Your task to perform on an android device: open app "Google Play services" Image 0: 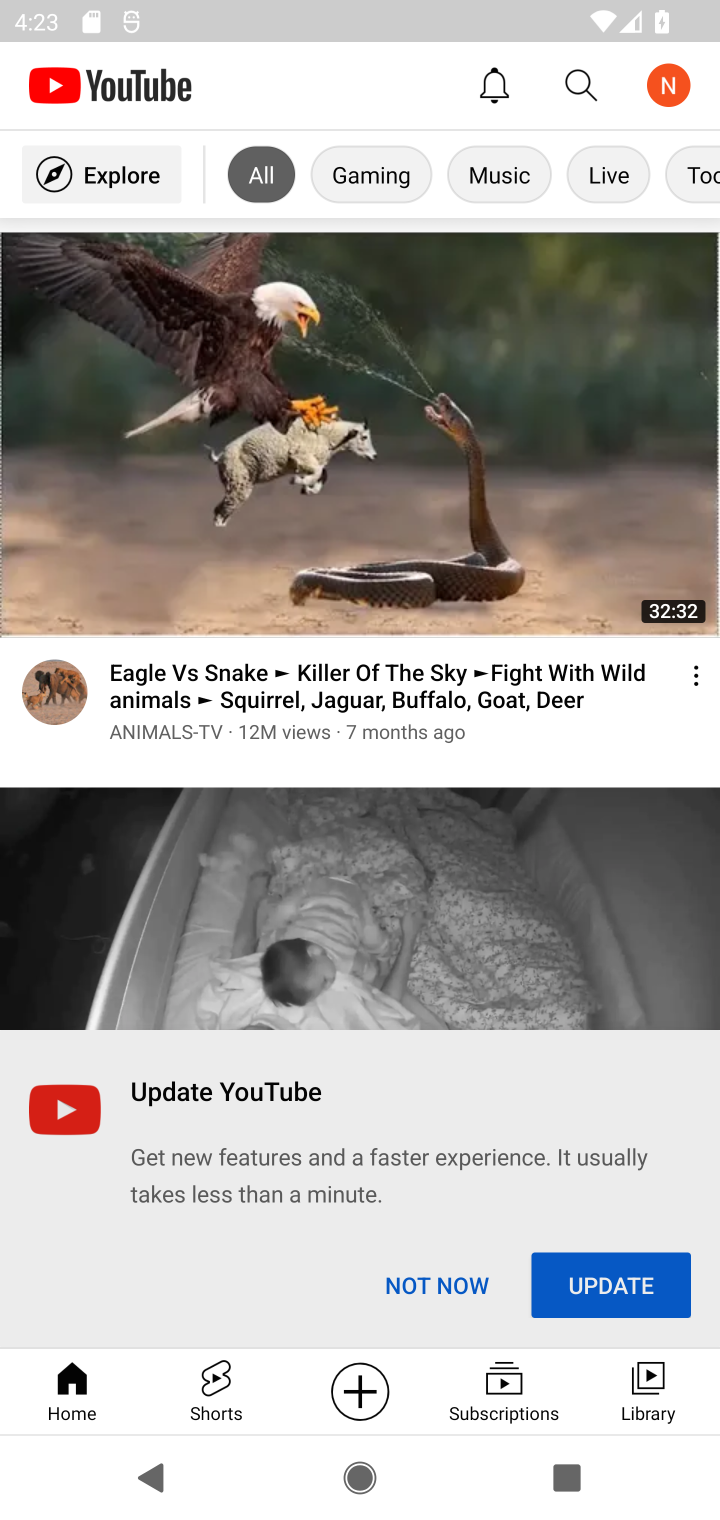
Step 0: press home button
Your task to perform on an android device: open app "Google Play services" Image 1: 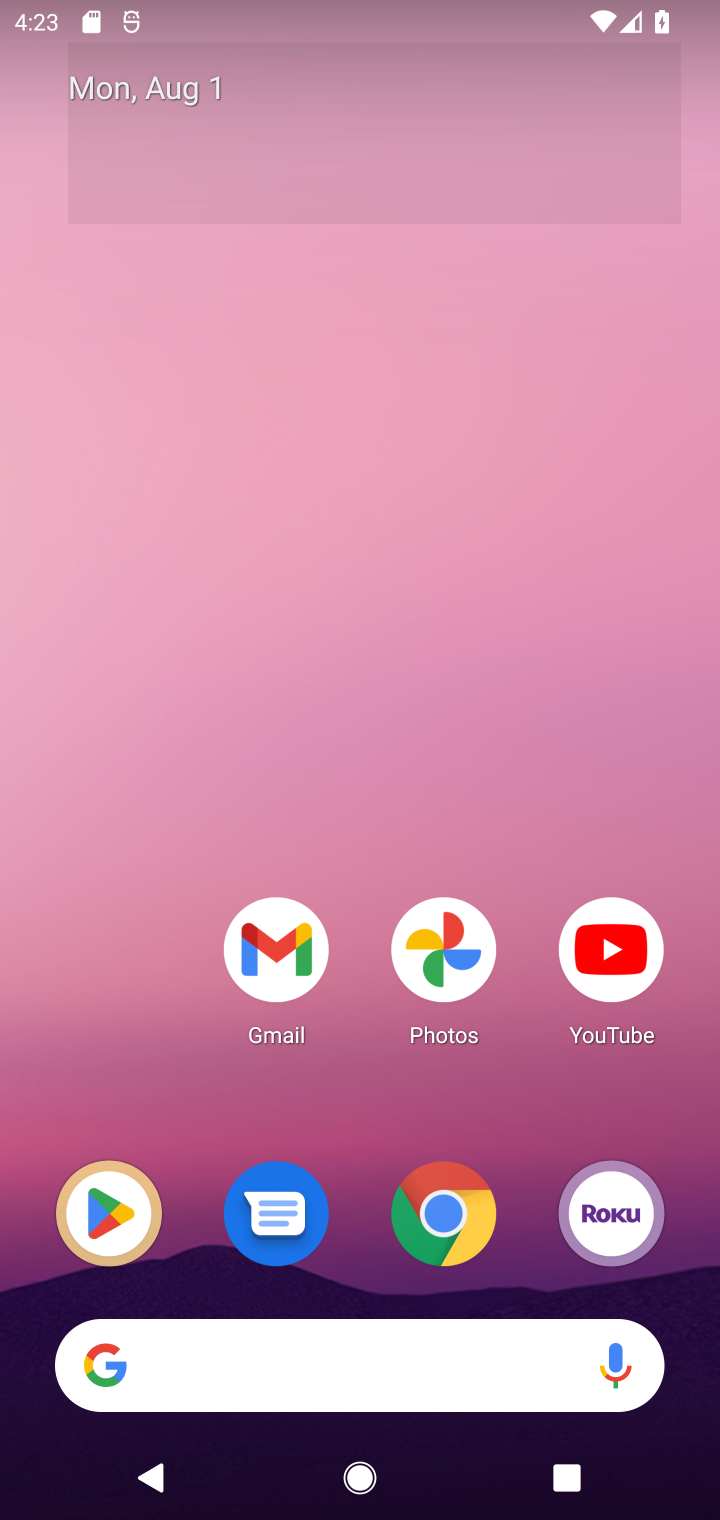
Step 1: drag from (503, 1092) to (506, 0)
Your task to perform on an android device: open app "Google Play services" Image 2: 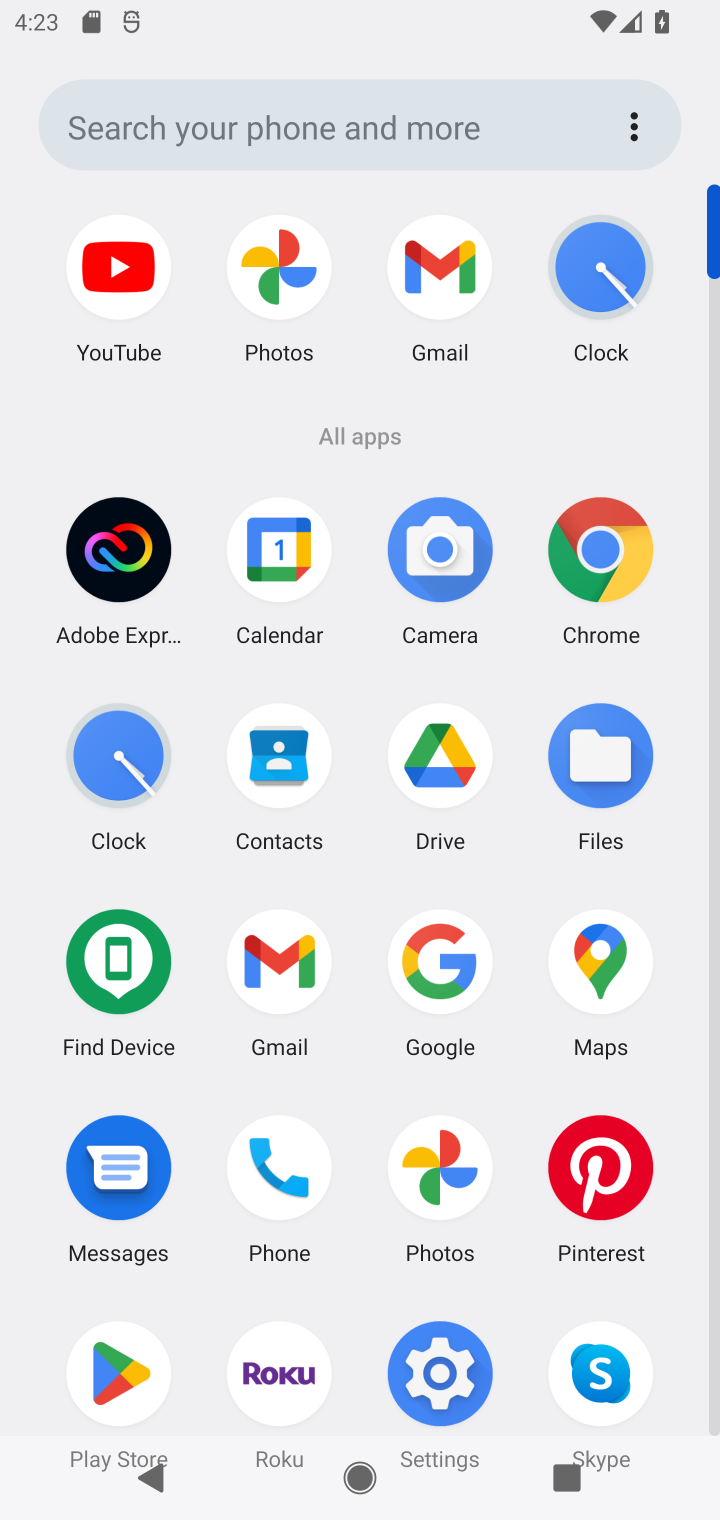
Step 2: drag from (533, 1103) to (602, 354)
Your task to perform on an android device: open app "Google Play services" Image 3: 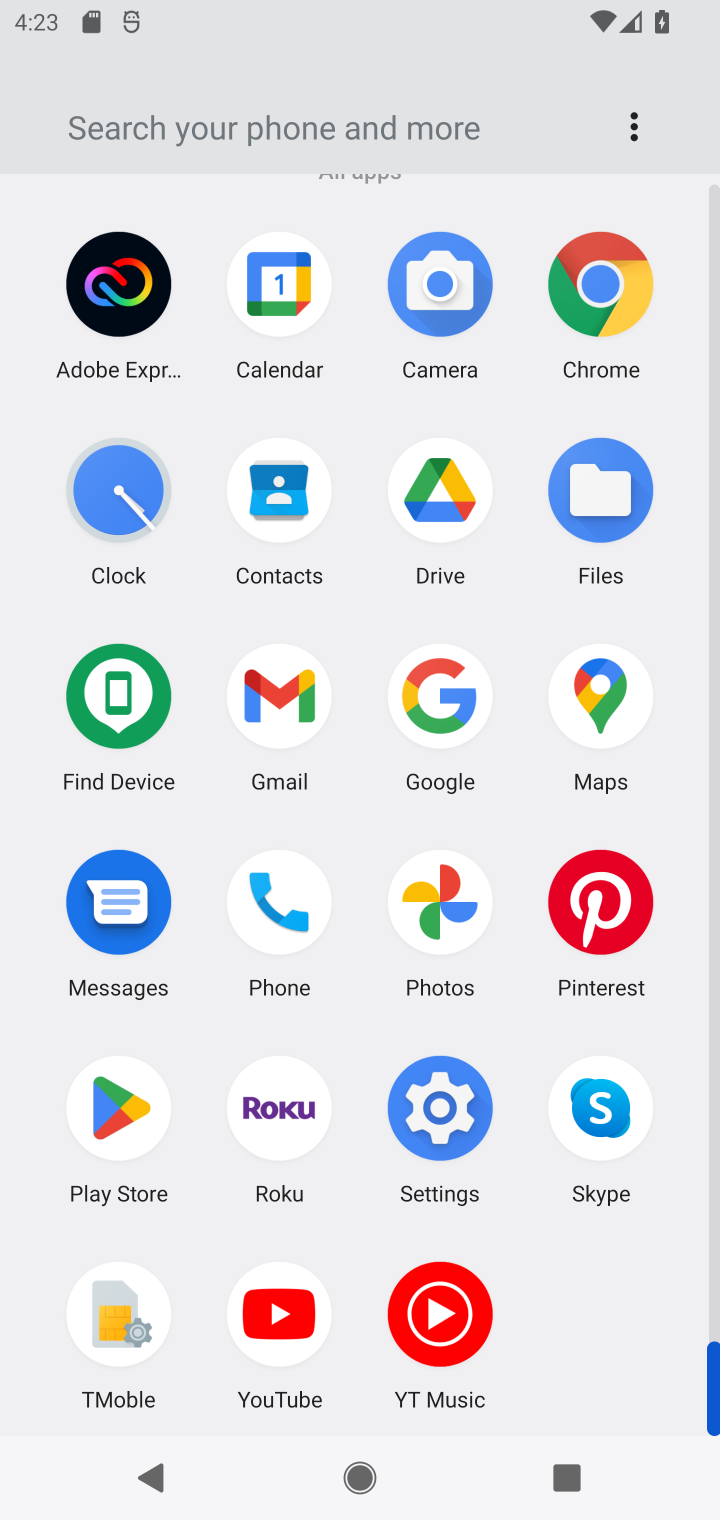
Step 3: click (131, 1102)
Your task to perform on an android device: open app "Google Play services" Image 4: 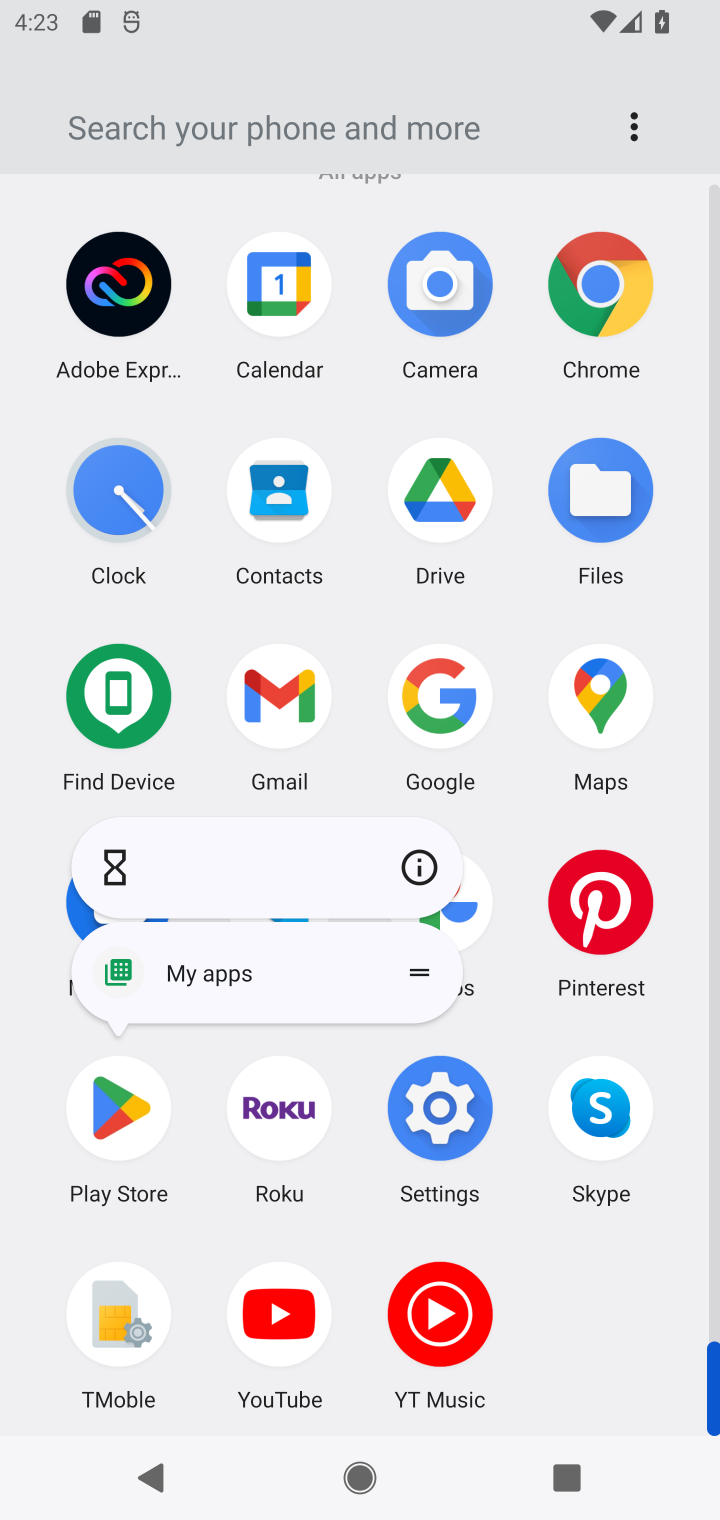
Step 4: click (121, 1138)
Your task to perform on an android device: open app "Google Play services" Image 5: 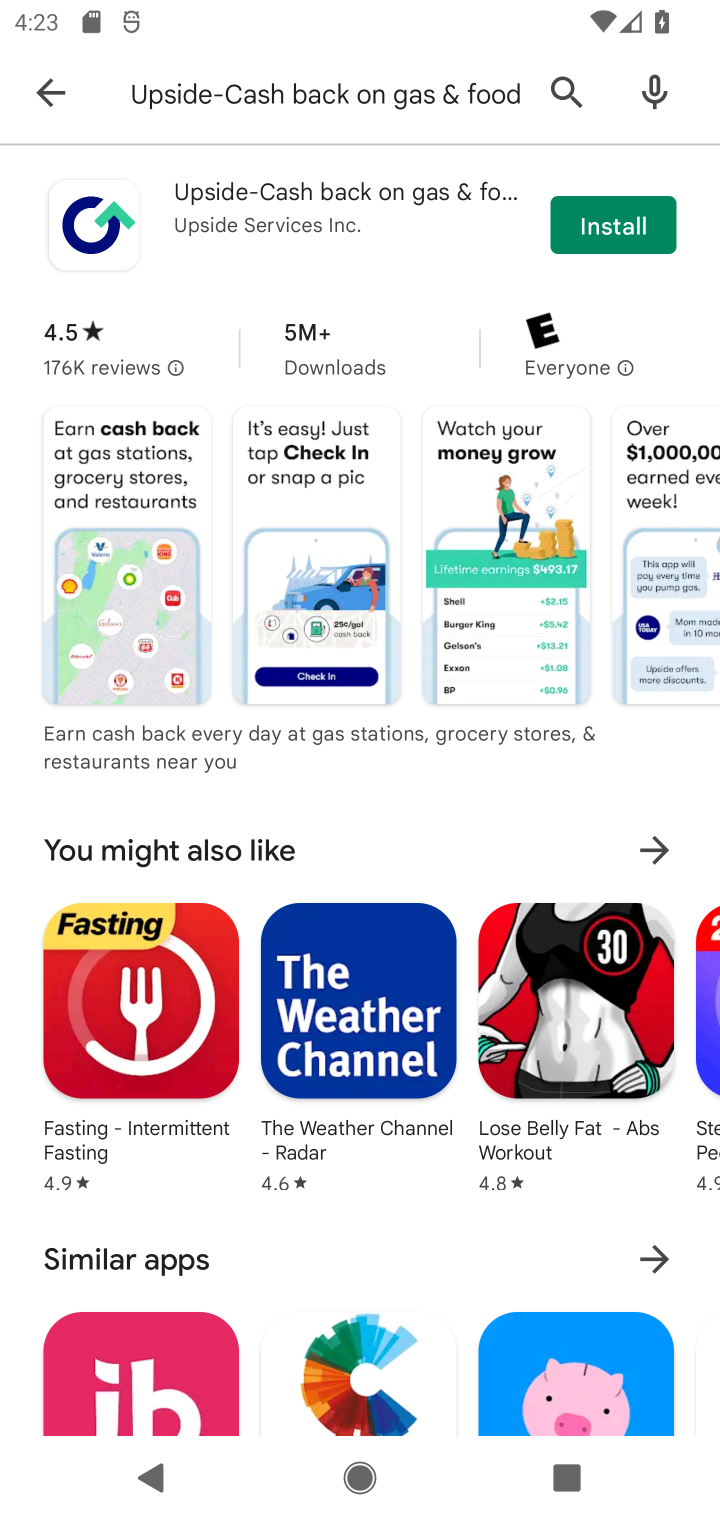
Step 5: click (448, 101)
Your task to perform on an android device: open app "Google Play services" Image 6: 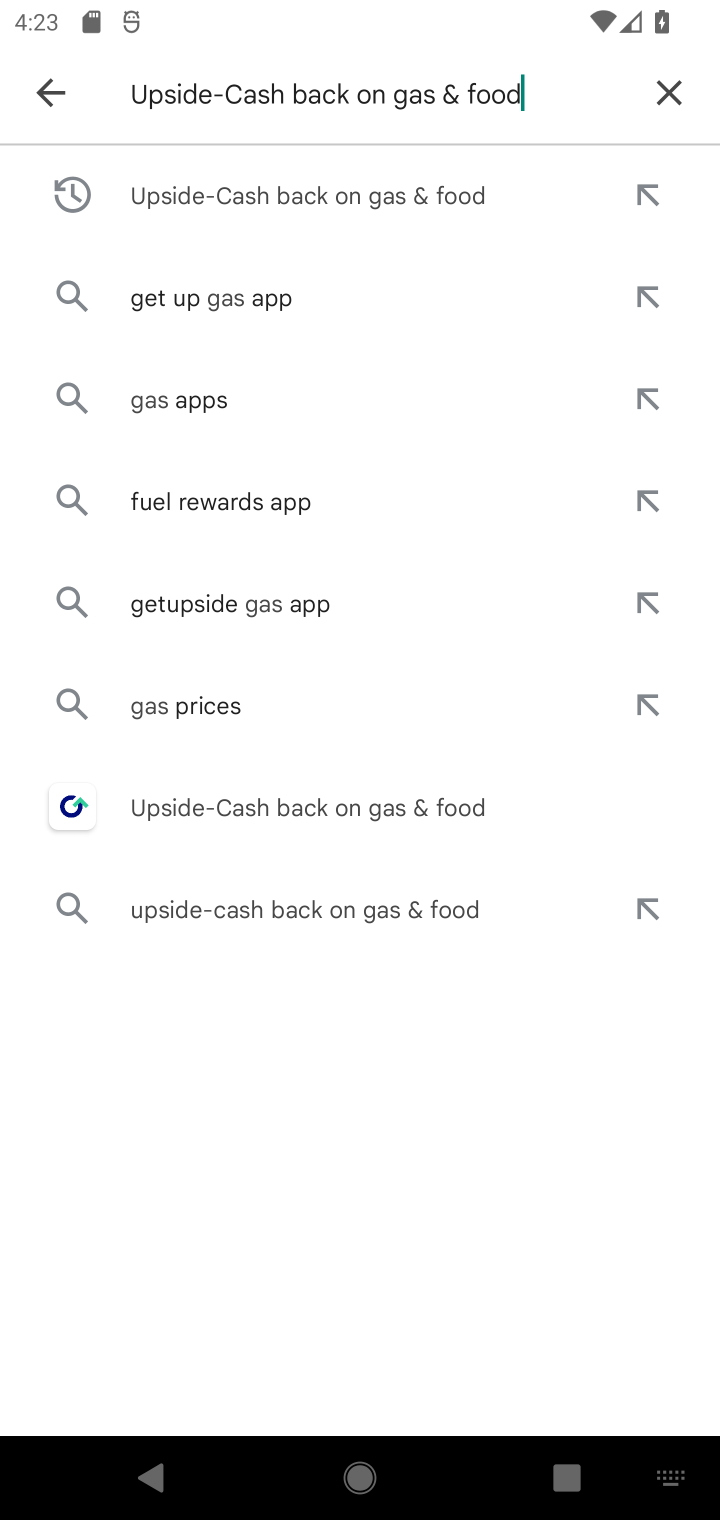
Step 6: click (675, 74)
Your task to perform on an android device: open app "Google Play services" Image 7: 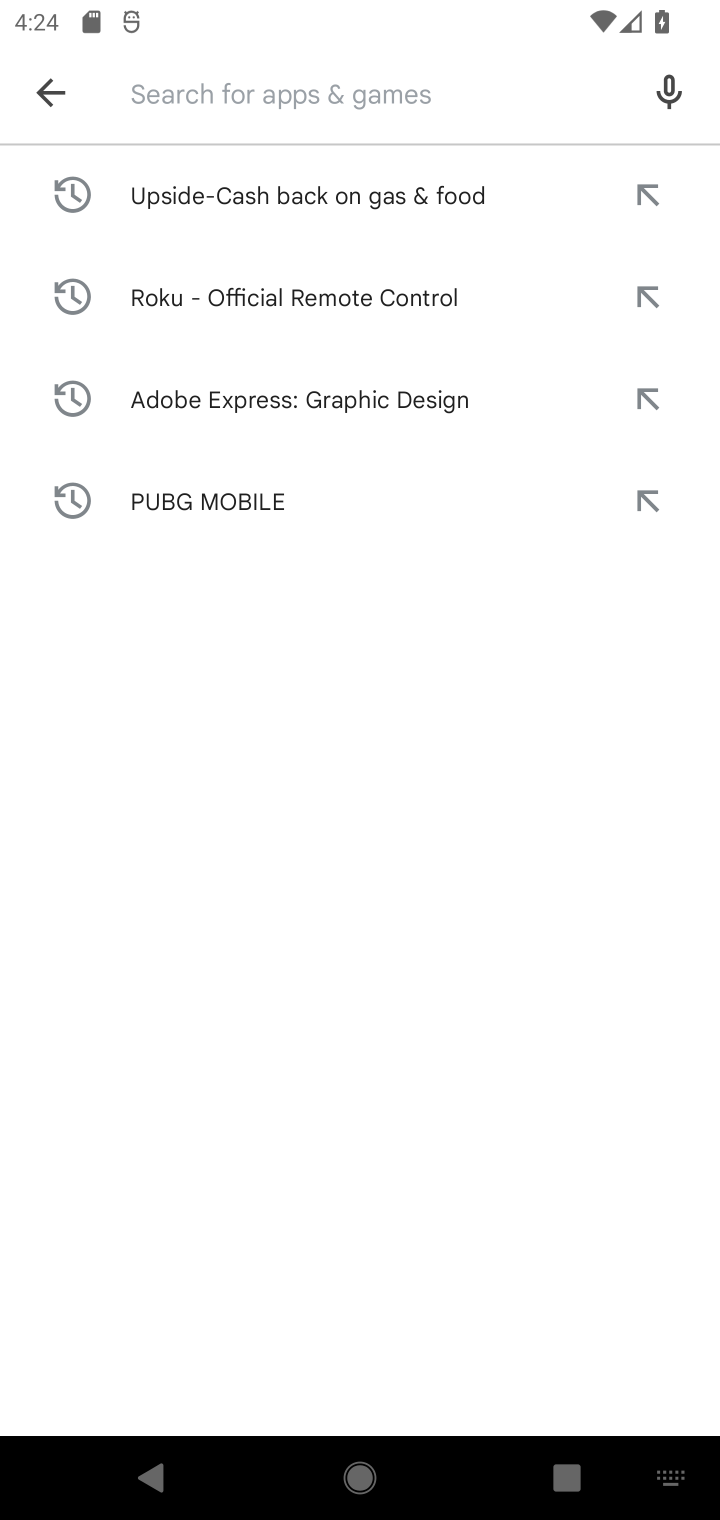
Step 7: type "Google Play services"
Your task to perform on an android device: open app "Google Play services" Image 8: 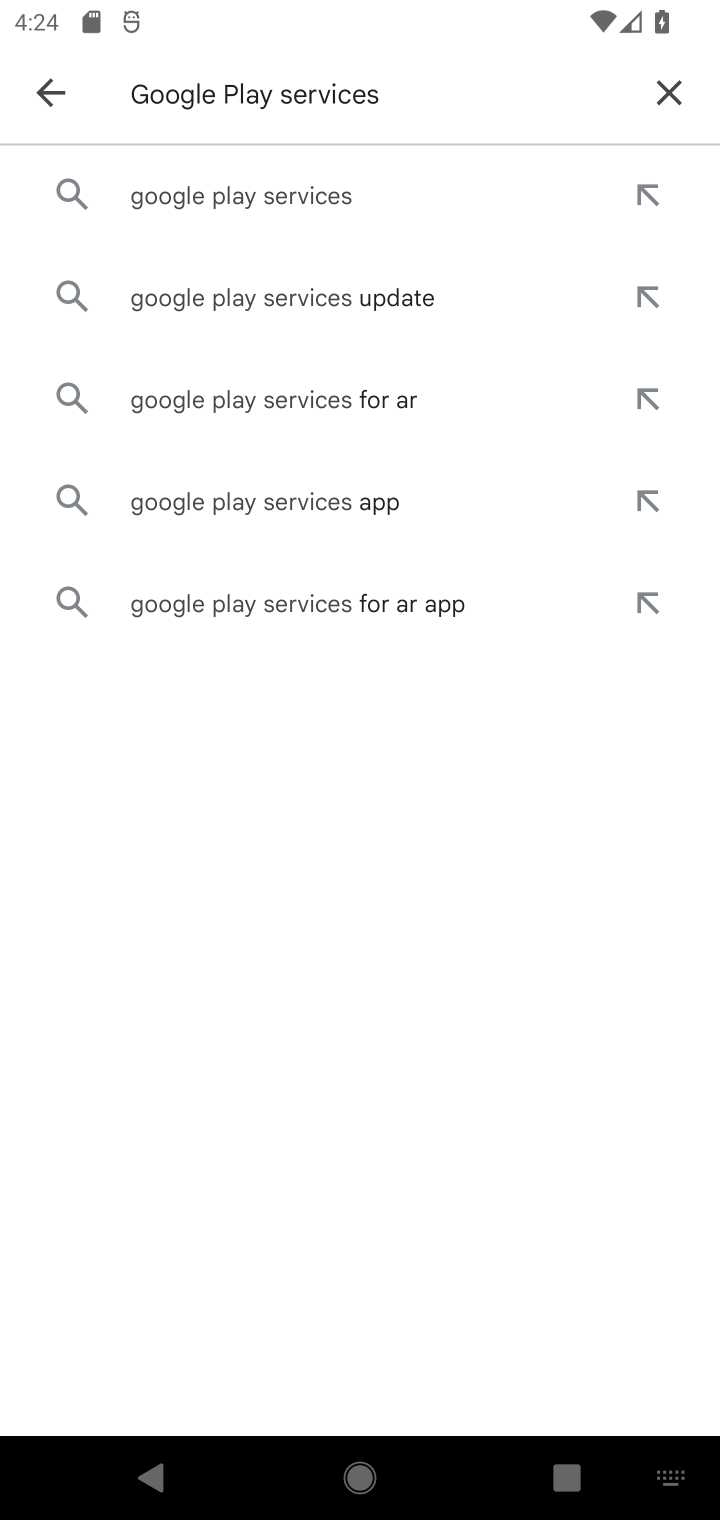
Step 8: press enter
Your task to perform on an android device: open app "Google Play services" Image 9: 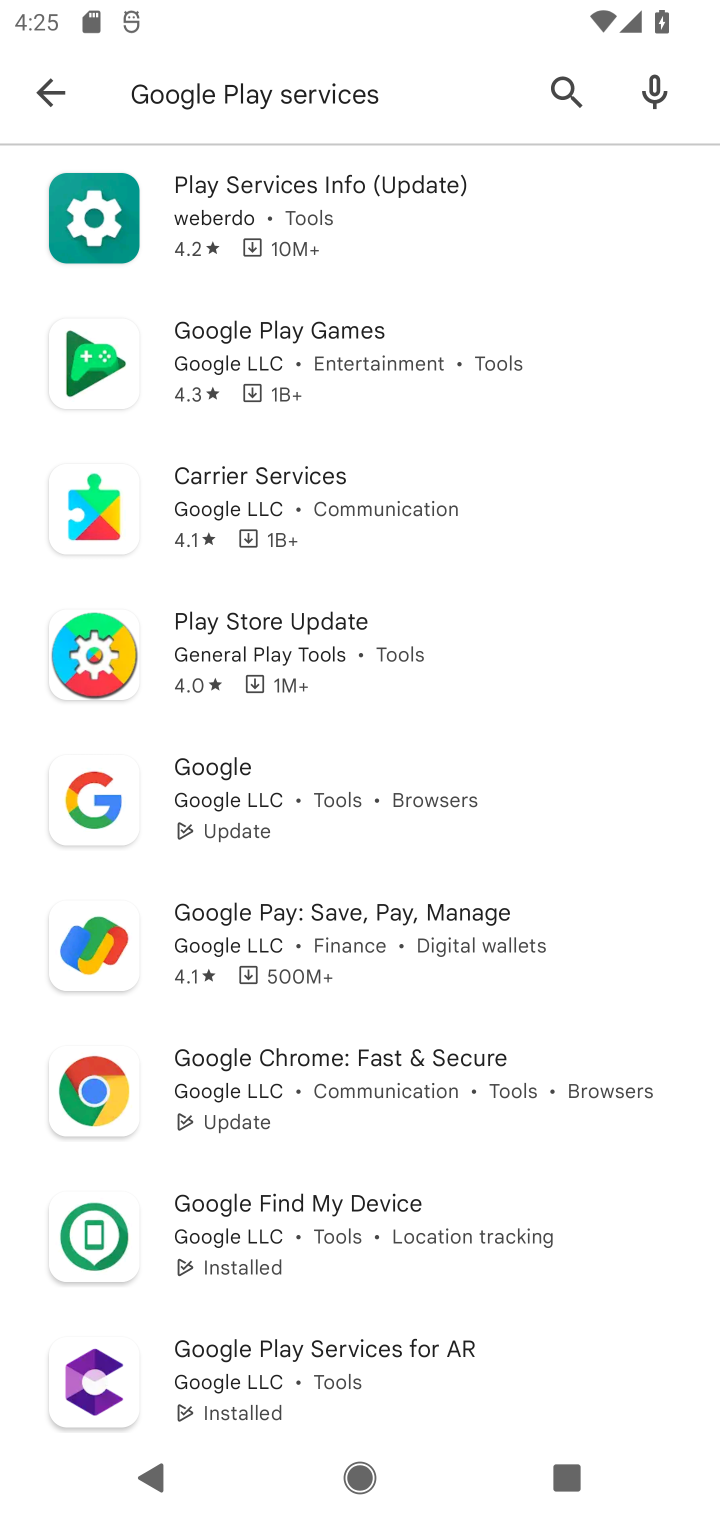
Step 9: press home button
Your task to perform on an android device: open app "Google Play services" Image 10: 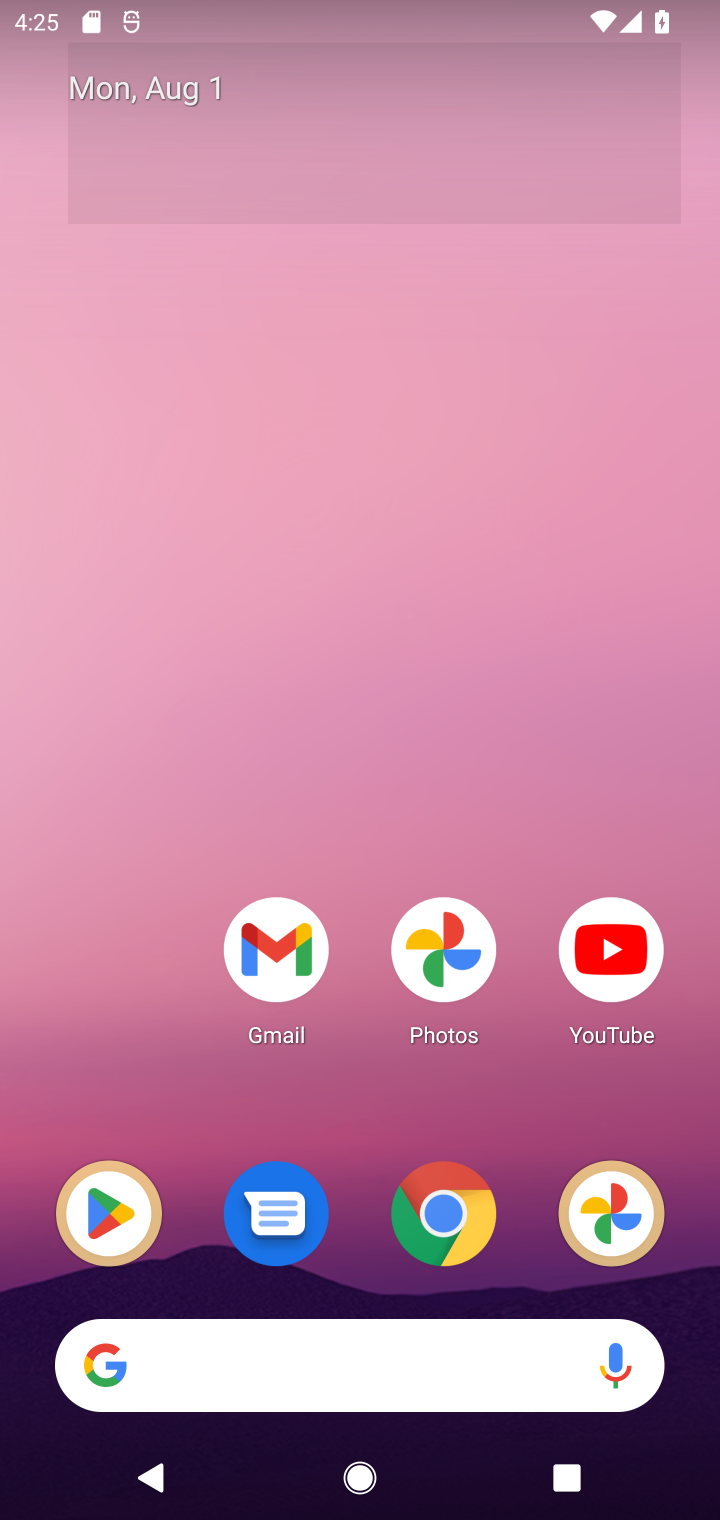
Step 10: drag from (515, 1140) to (474, 26)
Your task to perform on an android device: open app "Google Play services" Image 11: 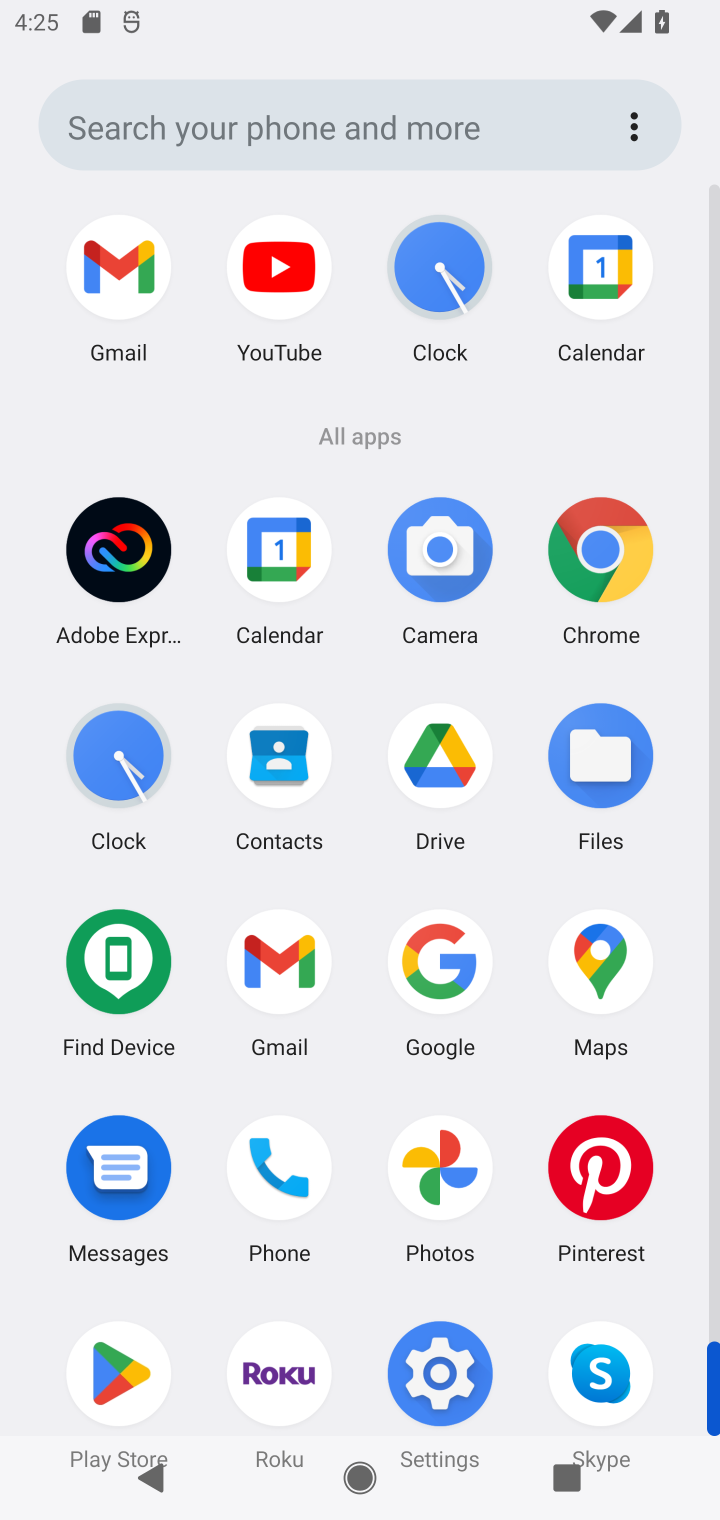
Step 11: click (454, 1377)
Your task to perform on an android device: open app "Google Play services" Image 12: 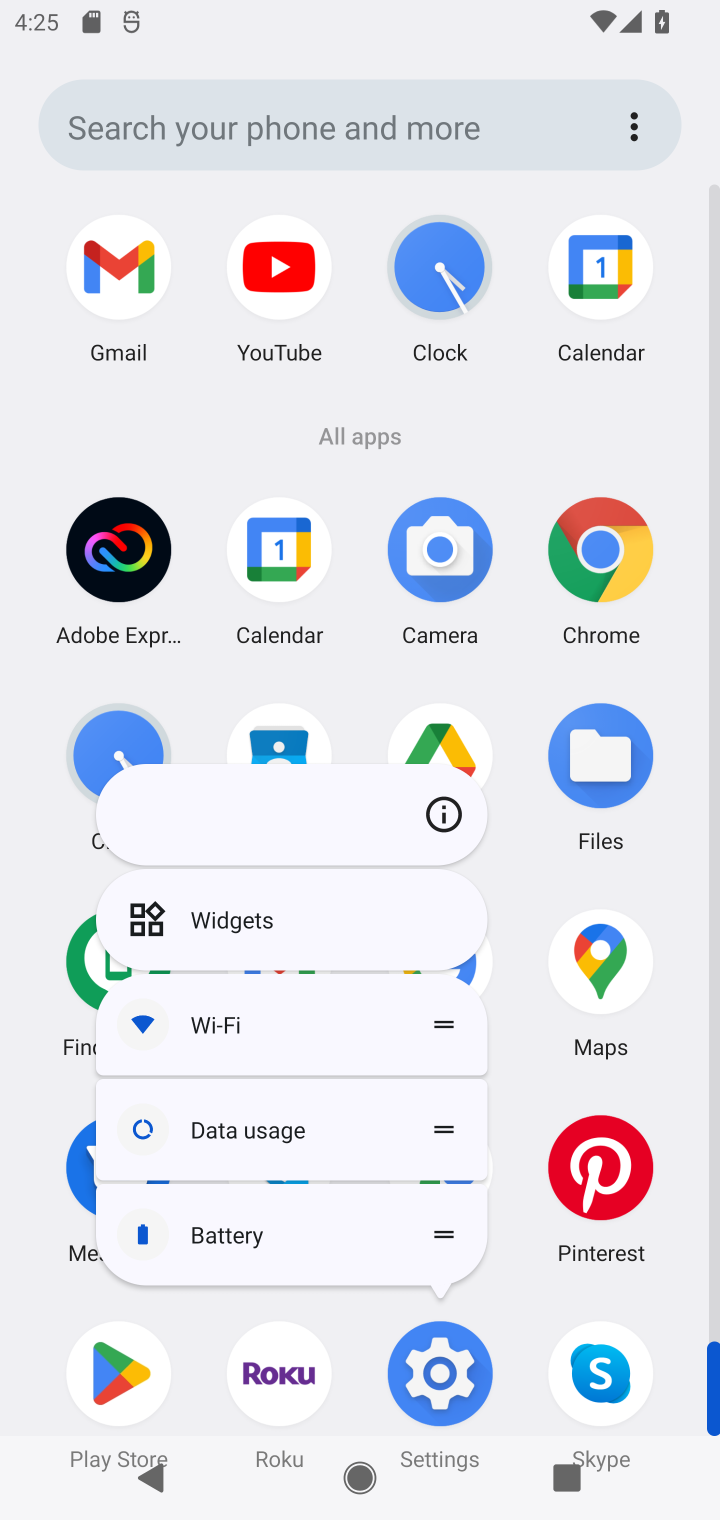
Step 12: click (443, 1403)
Your task to perform on an android device: open app "Google Play services" Image 13: 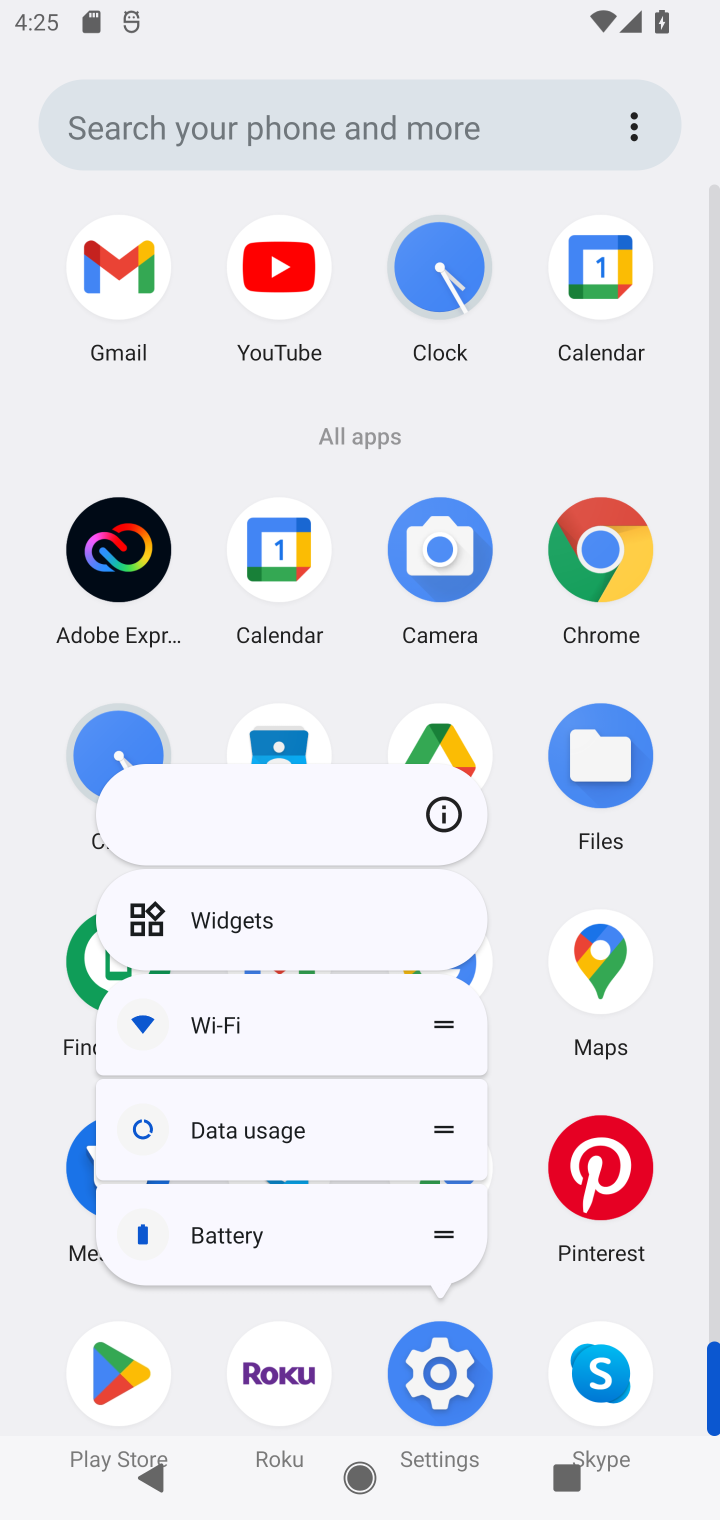
Step 13: click (445, 1395)
Your task to perform on an android device: open app "Google Play services" Image 14: 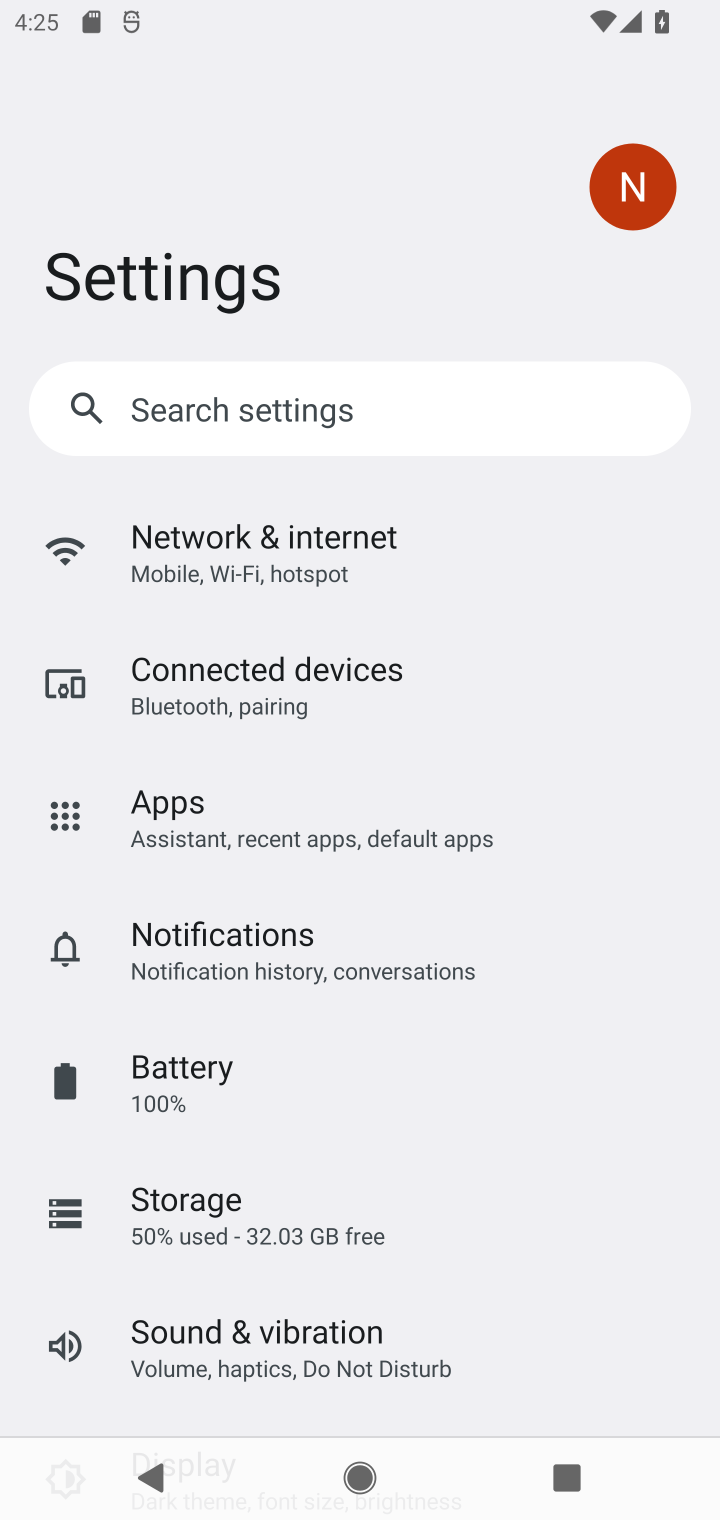
Step 14: drag from (500, 1251) to (506, 987)
Your task to perform on an android device: open app "Google Play services" Image 15: 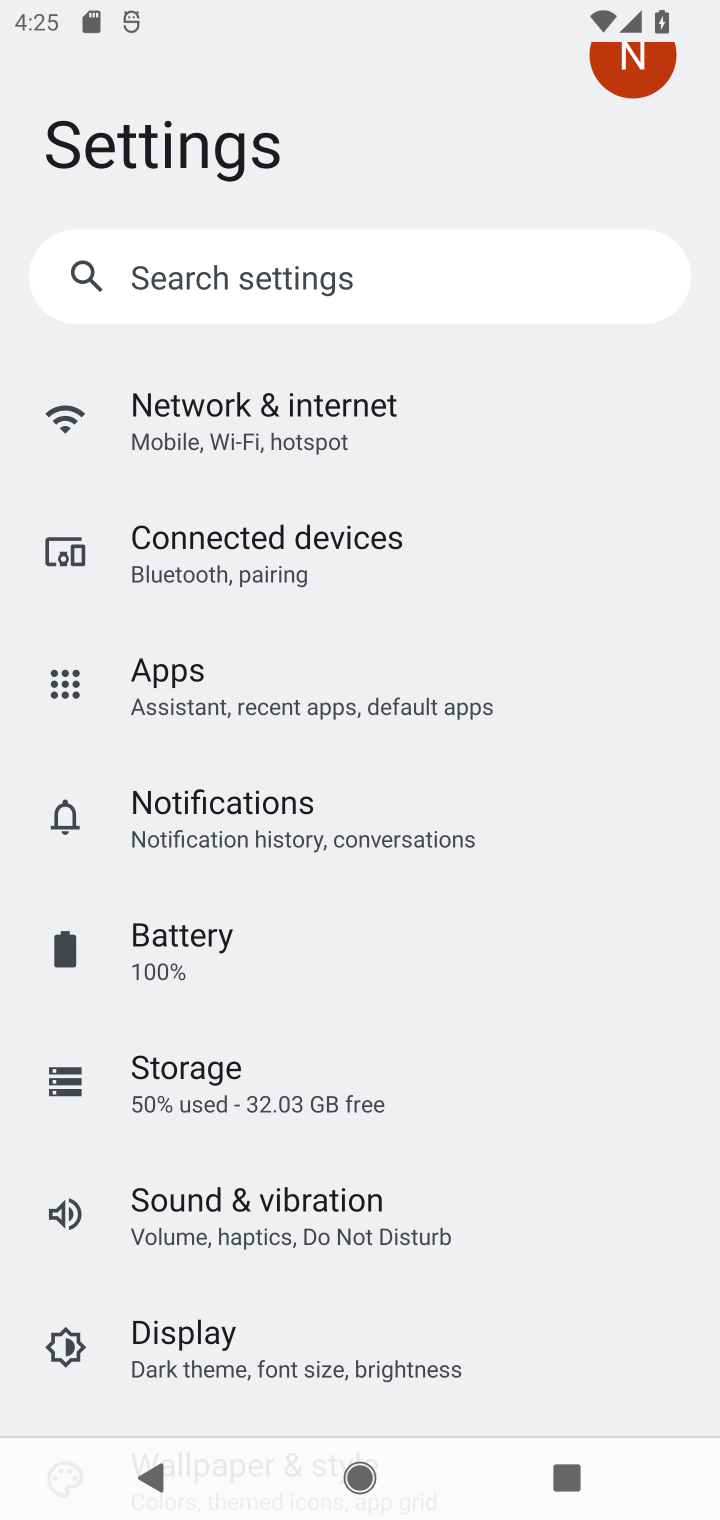
Step 15: click (216, 738)
Your task to perform on an android device: open app "Google Play services" Image 16: 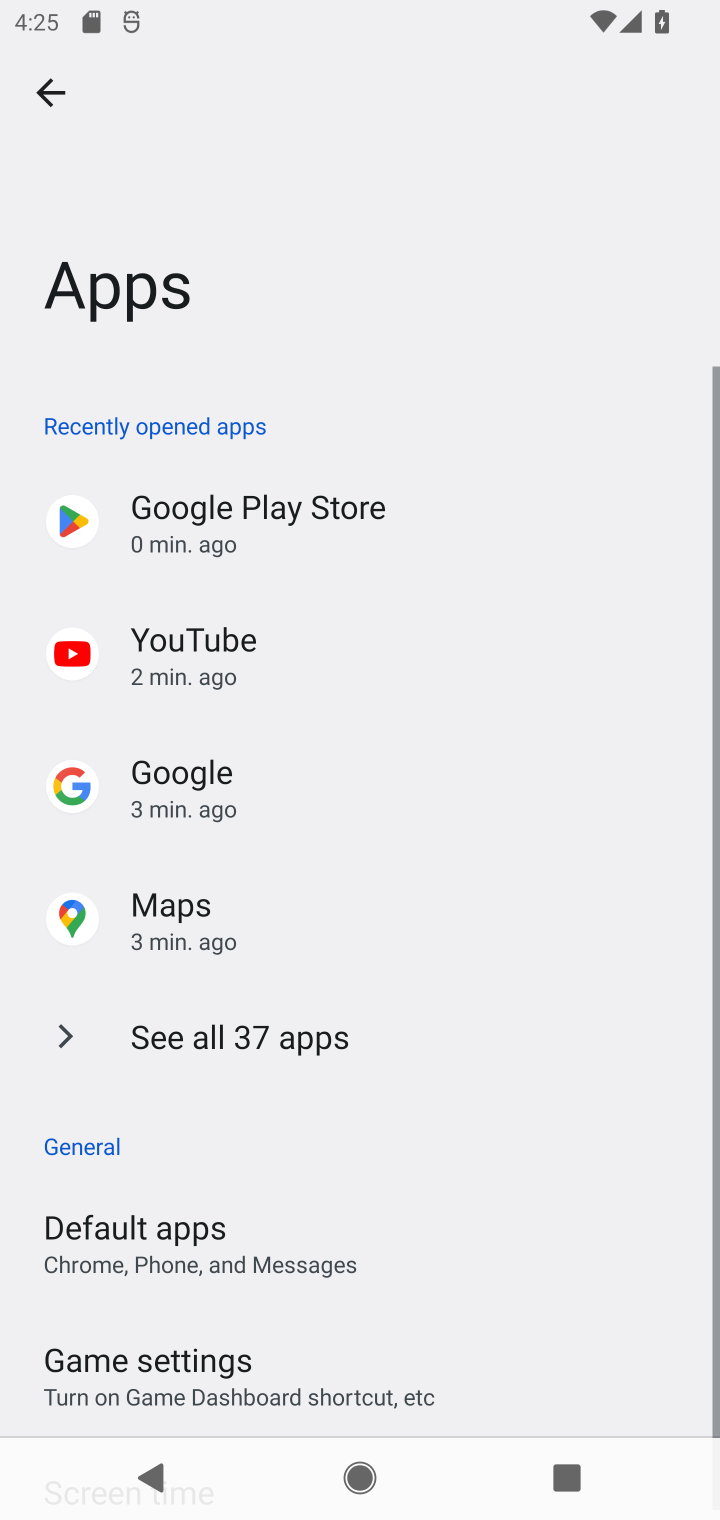
Step 16: click (183, 681)
Your task to perform on an android device: open app "Google Play services" Image 17: 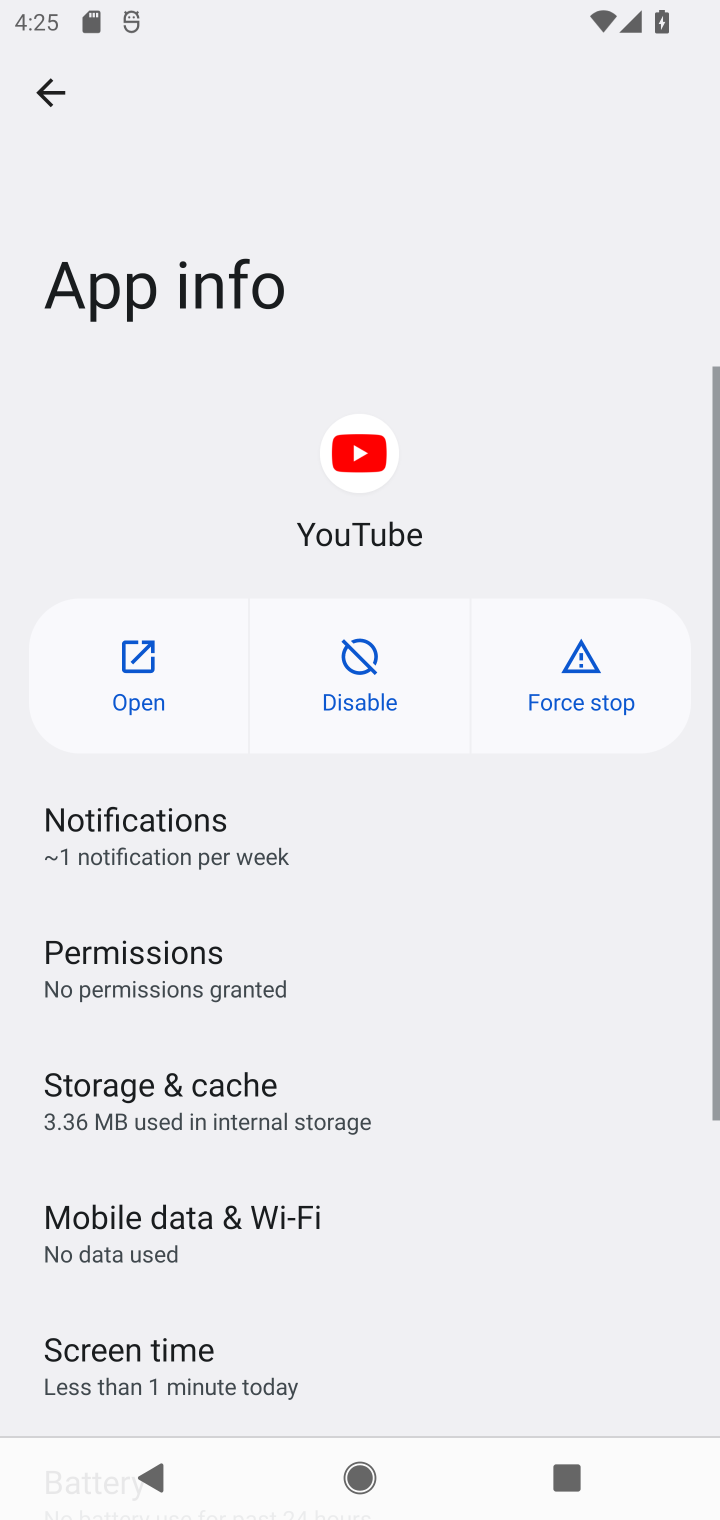
Step 17: press back button
Your task to perform on an android device: open app "Google Play services" Image 18: 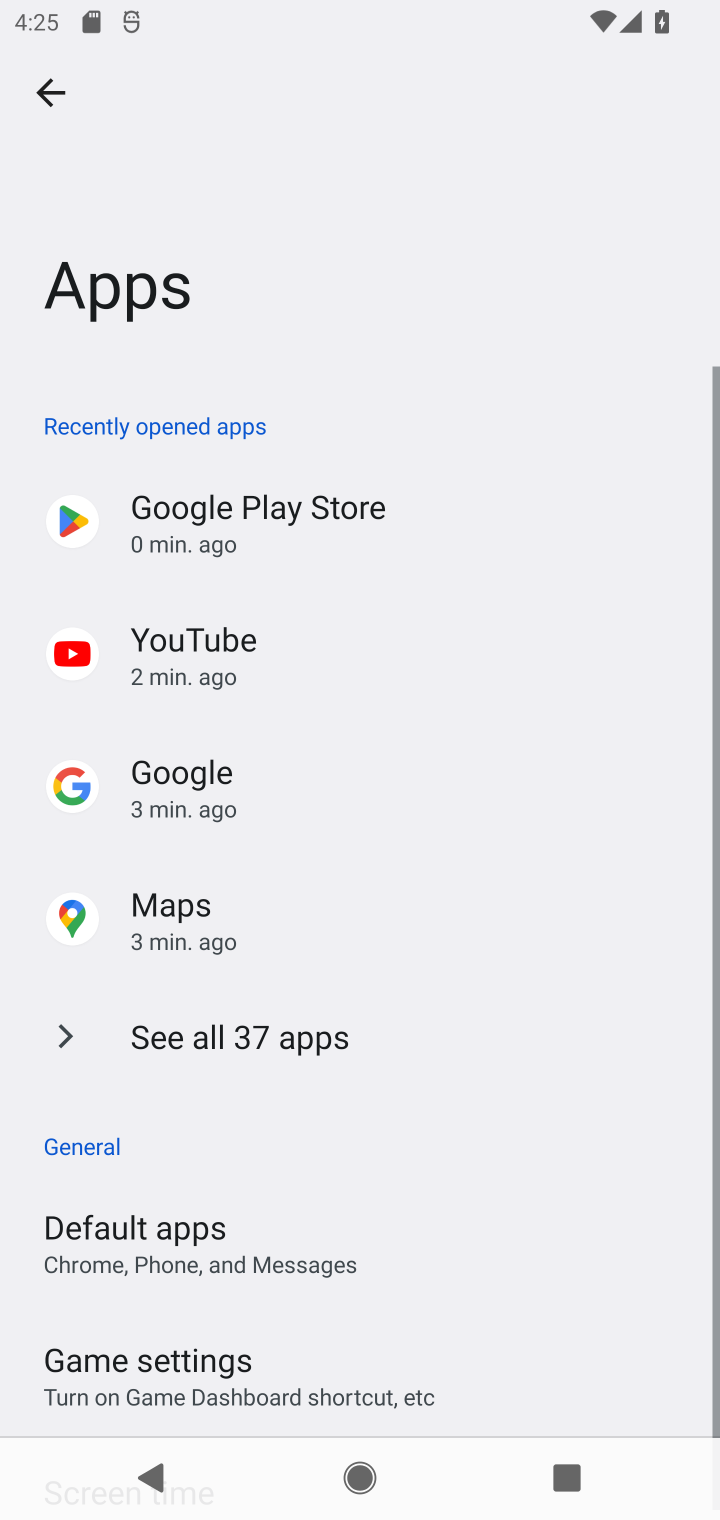
Step 18: click (562, 338)
Your task to perform on an android device: open app "Google Play services" Image 19: 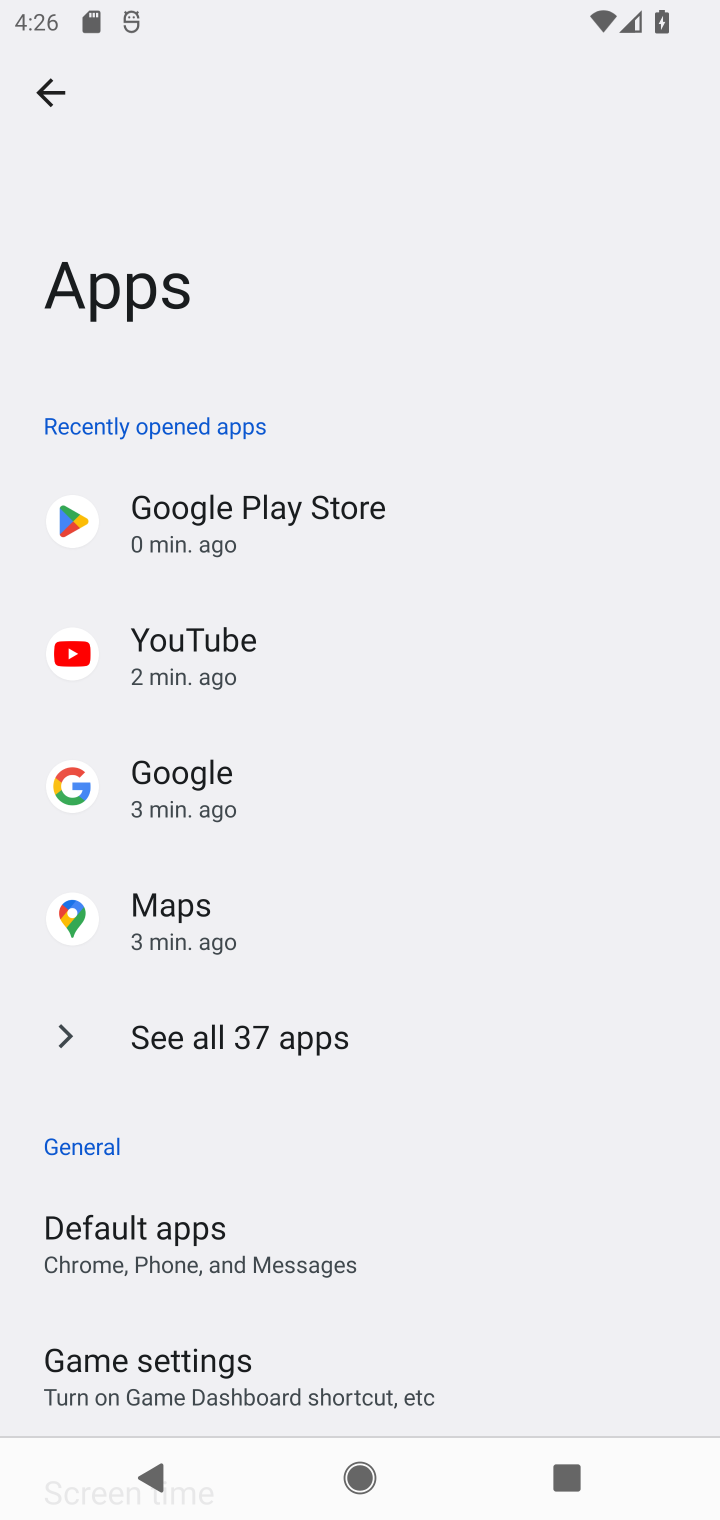
Step 19: click (300, 1045)
Your task to perform on an android device: open app "Google Play services" Image 20: 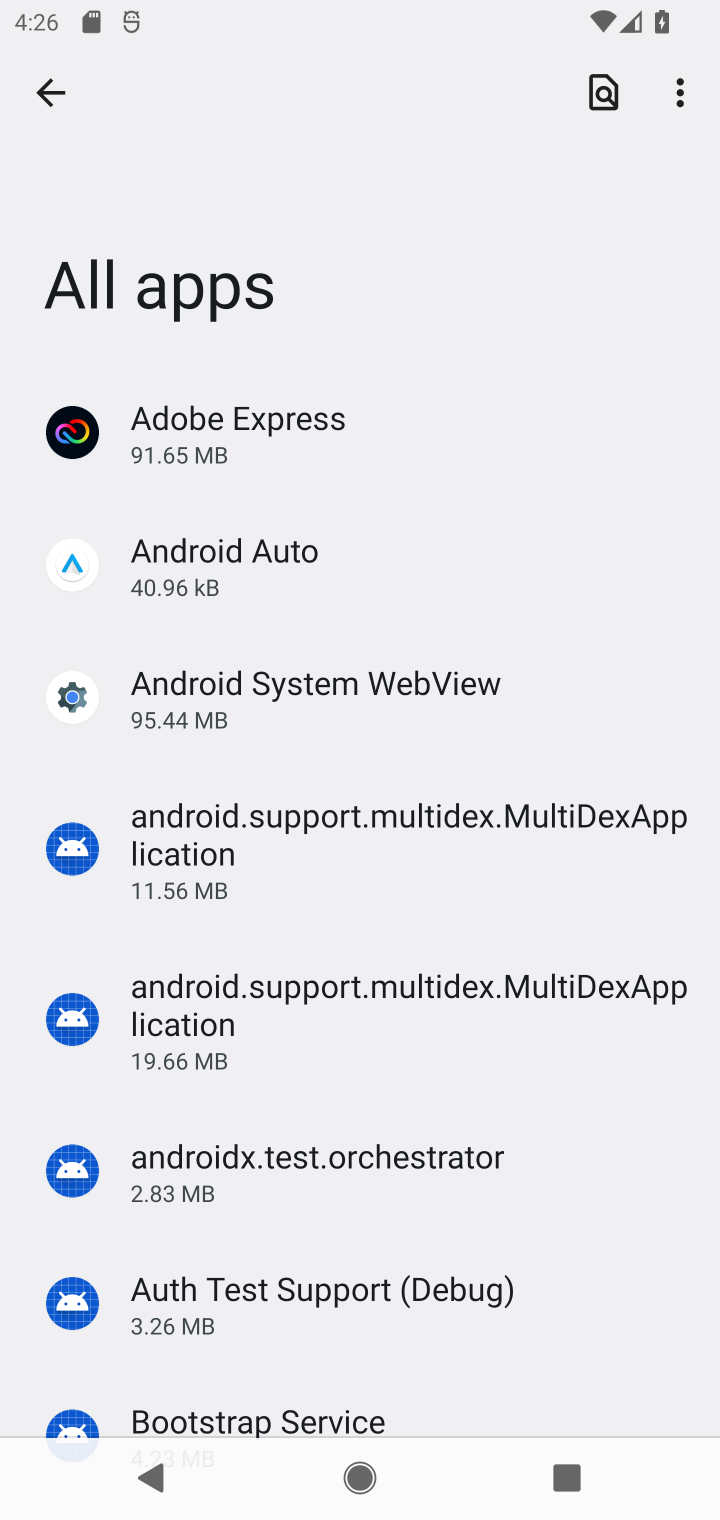
Step 20: drag from (494, 1335) to (560, 329)
Your task to perform on an android device: open app "Google Play services" Image 21: 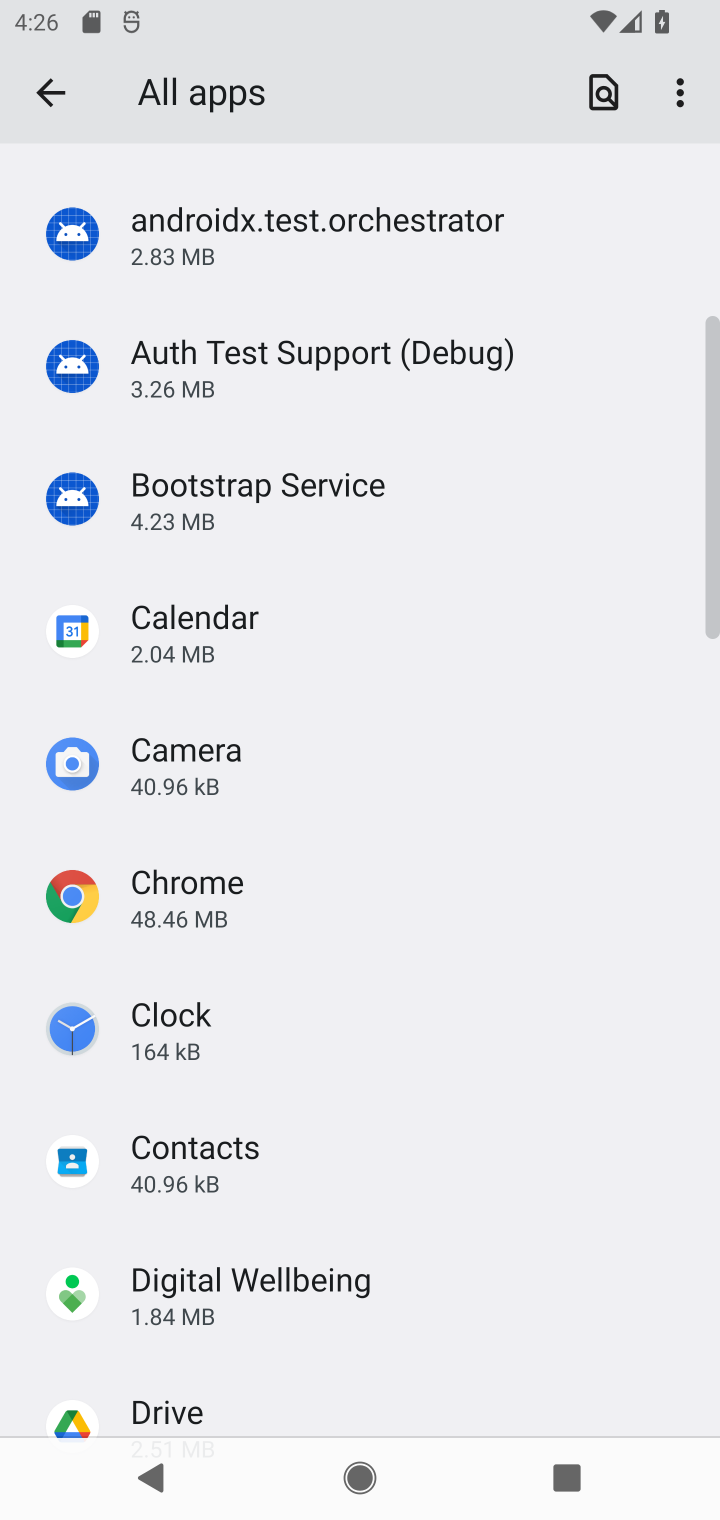
Step 21: drag from (437, 1314) to (552, 260)
Your task to perform on an android device: open app "Google Play services" Image 22: 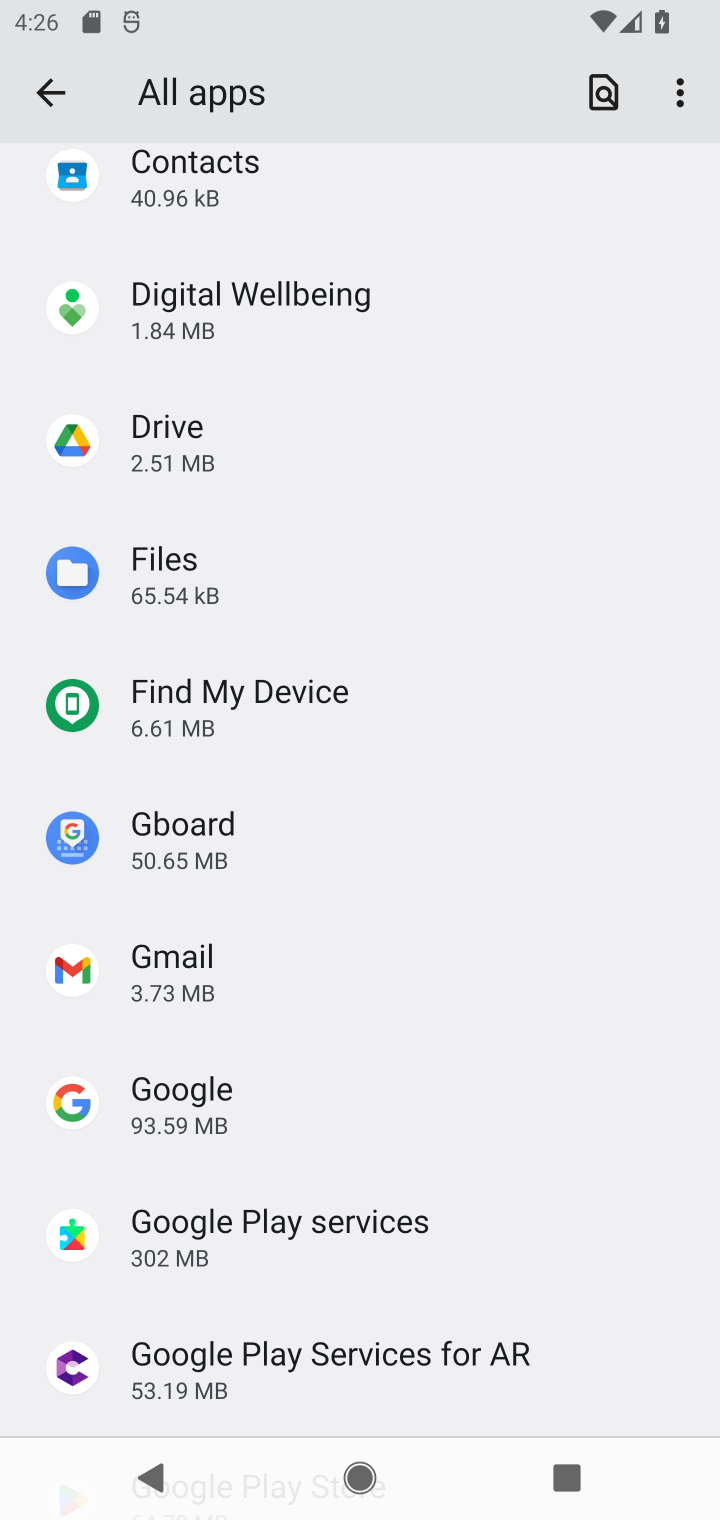
Step 22: click (263, 1247)
Your task to perform on an android device: open app "Google Play services" Image 23: 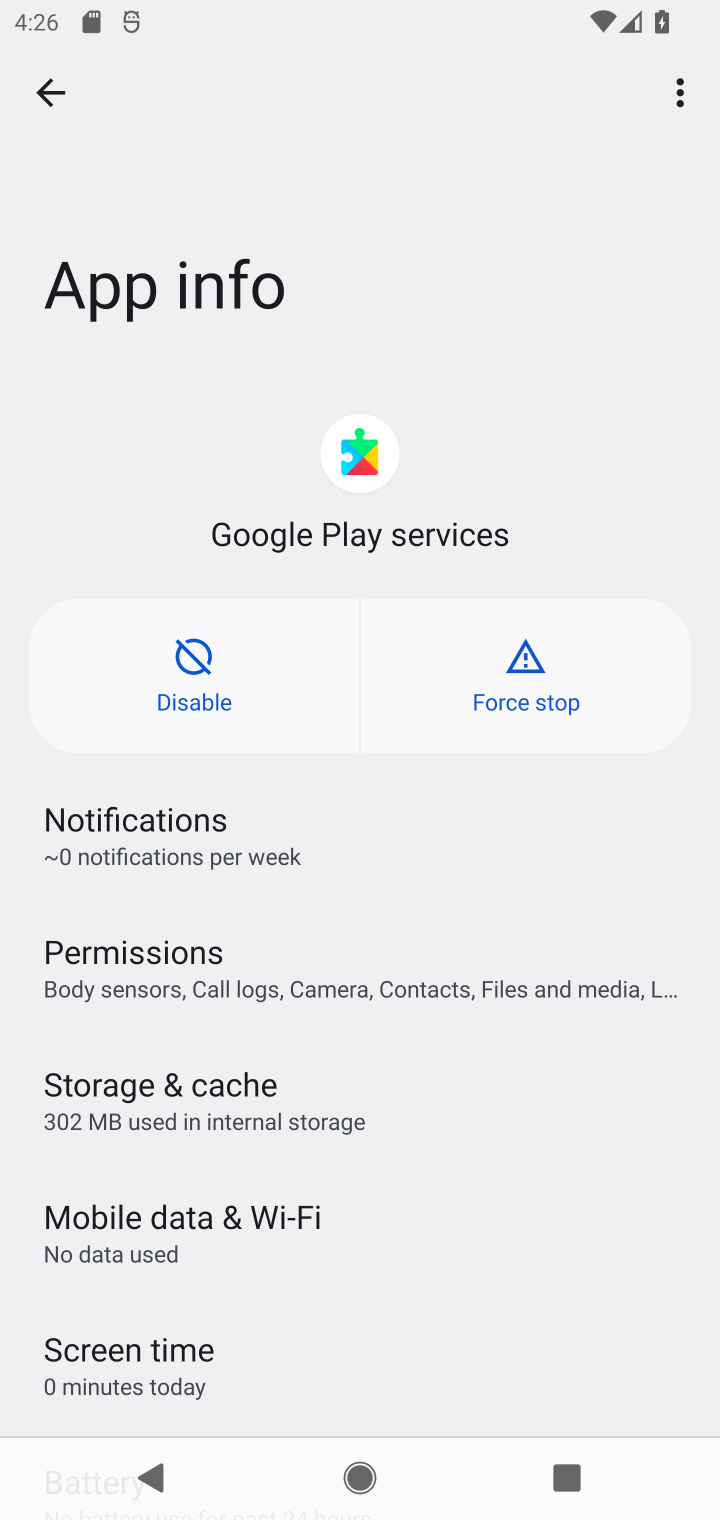
Step 23: task complete